Your task to perform on an android device: Open wifi settings Image 0: 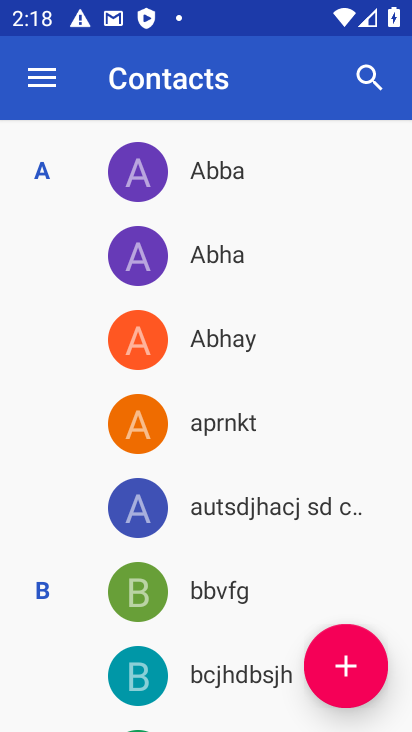
Step 0: press home button
Your task to perform on an android device: Open wifi settings Image 1: 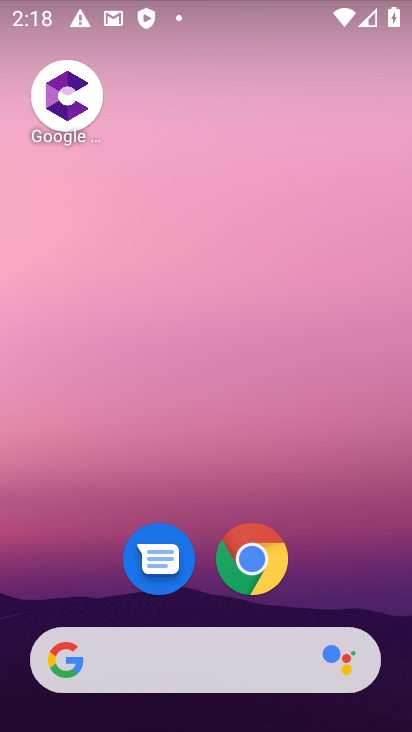
Step 1: drag from (328, 564) to (200, 68)
Your task to perform on an android device: Open wifi settings Image 2: 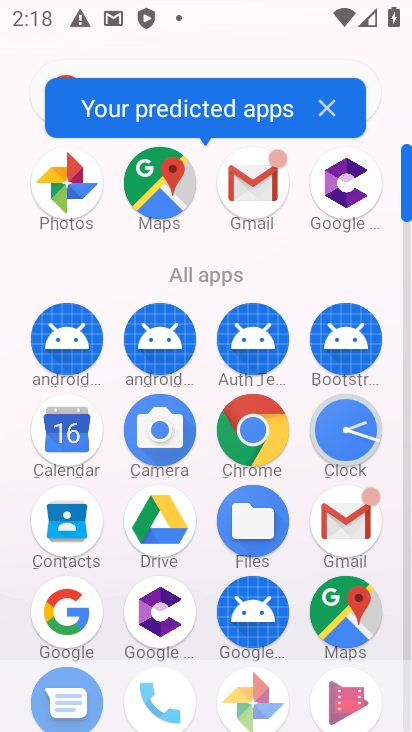
Step 2: drag from (203, 552) to (121, 0)
Your task to perform on an android device: Open wifi settings Image 3: 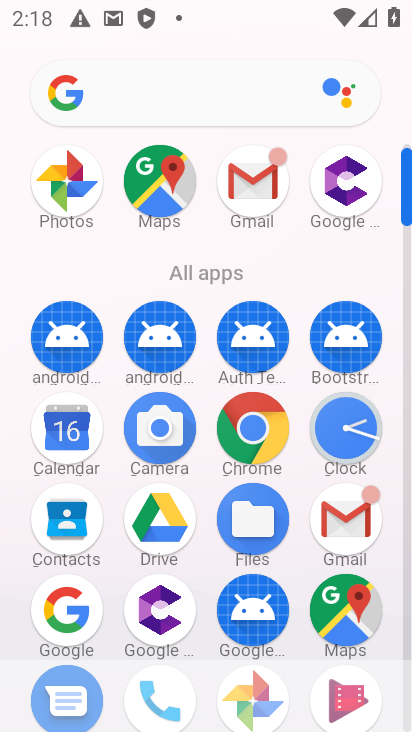
Step 3: drag from (203, 586) to (204, 168)
Your task to perform on an android device: Open wifi settings Image 4: 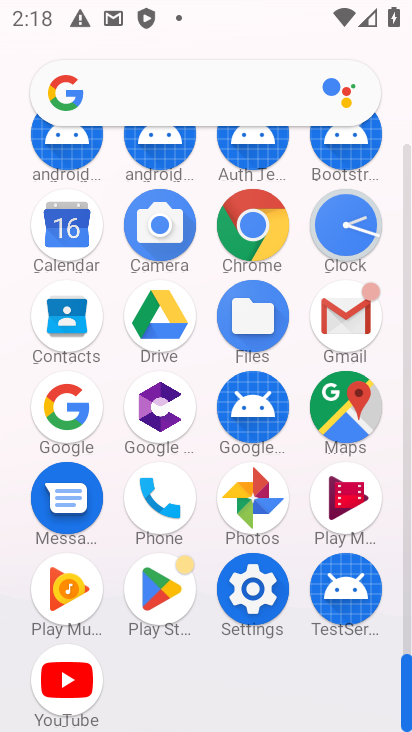
Step 4: click (253, 589)
Your task to perform on an android device: Open wifi settings Image 5: 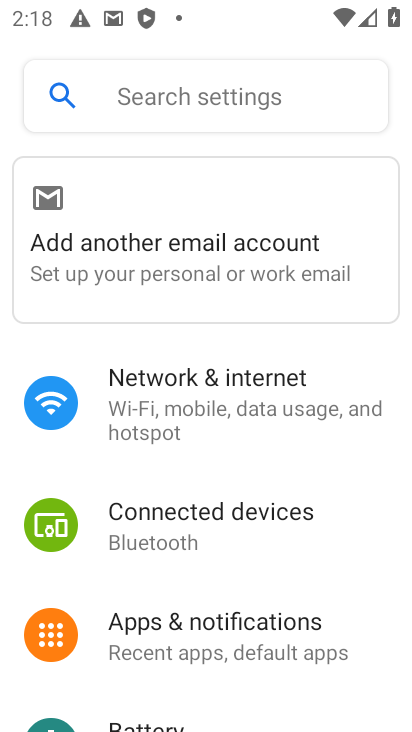
Step 5: click (181, 385)
Your task to perform on an android device: Open wifi settings Image 6: 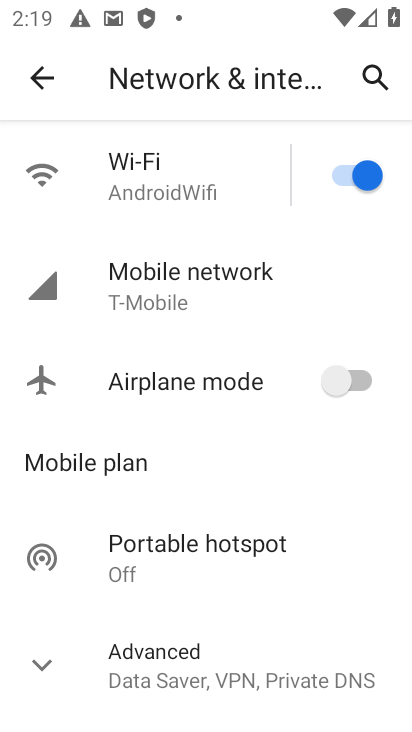
Step 6: click (143, 159)
Your task to perform on an android device: Open wifi settings Image 7: 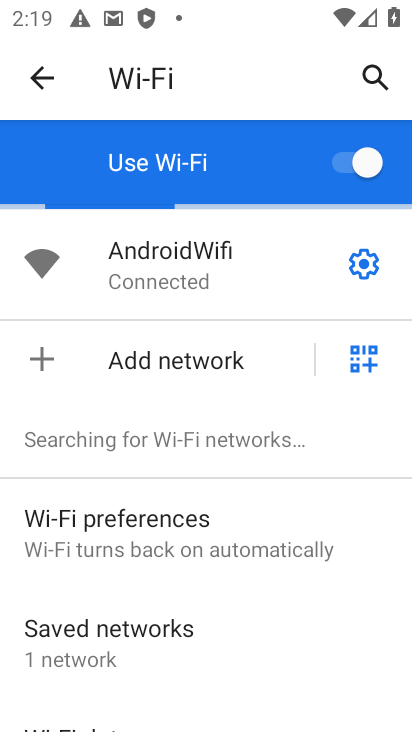
Step 7: task complete